Your task to perform on an android device: show emergency info Image 0: 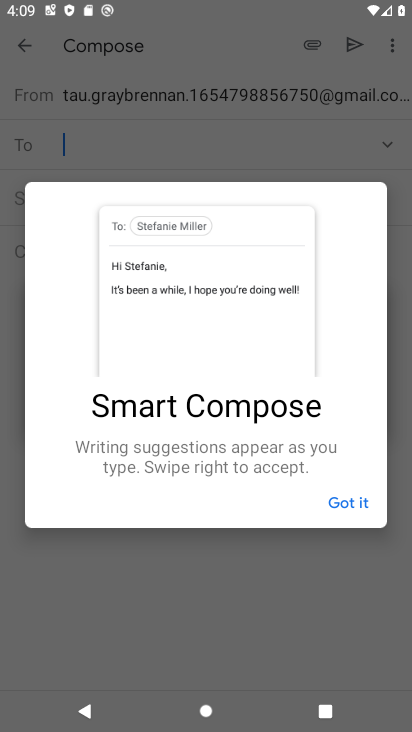
Step 0: press home button
Your task to perform on an android device: show emergency info Image 1: 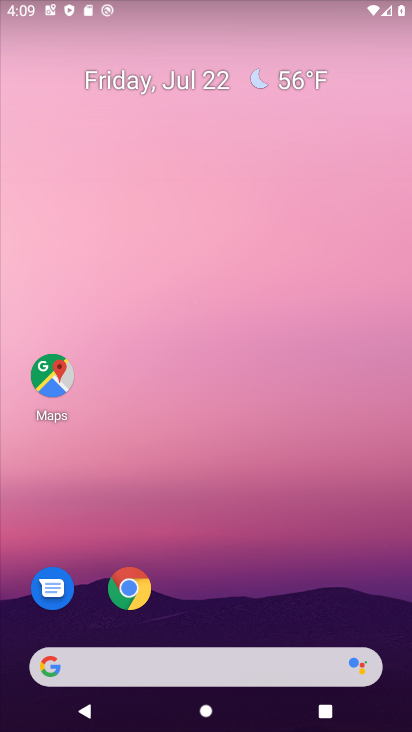
Step 1: drag from (219, 601) to (215, 91)
Your task to perform on an android device: show emergency info Image 2: 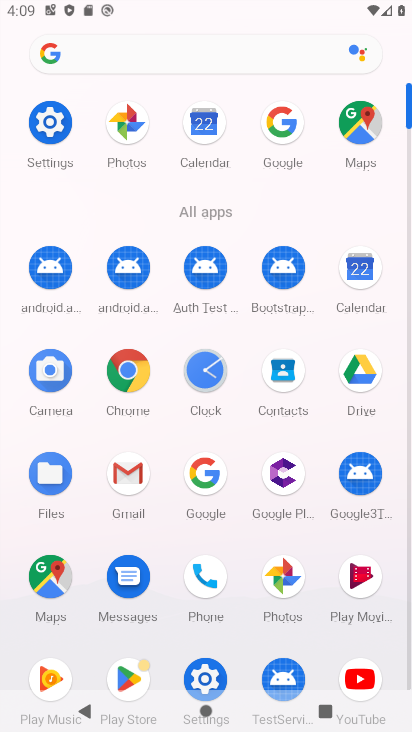
Step 2: click (59, 130)
Your task to perform on an android device: show emergency info Image 3: 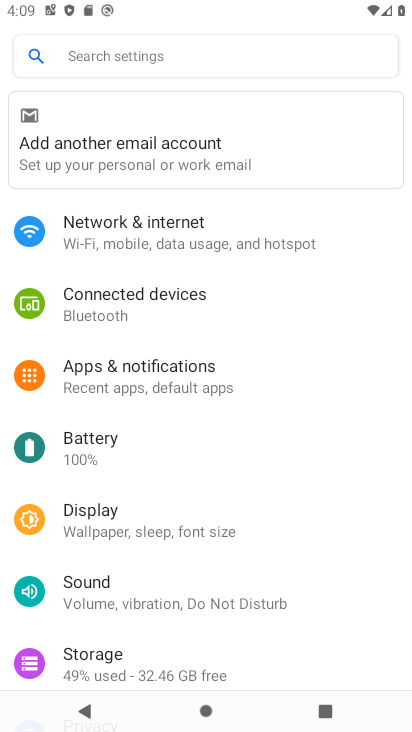
Step 3: drag from (192, 595) to (192, 206)
Your task to perform on an android device: show emergency info Image 4: 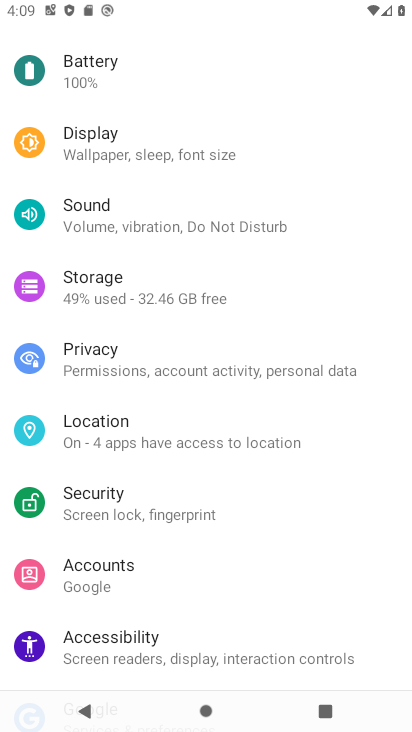
Step 4: drag from (211, 579) to (215, 114)
Your task to perform on an android device: show emergency info Image 5: 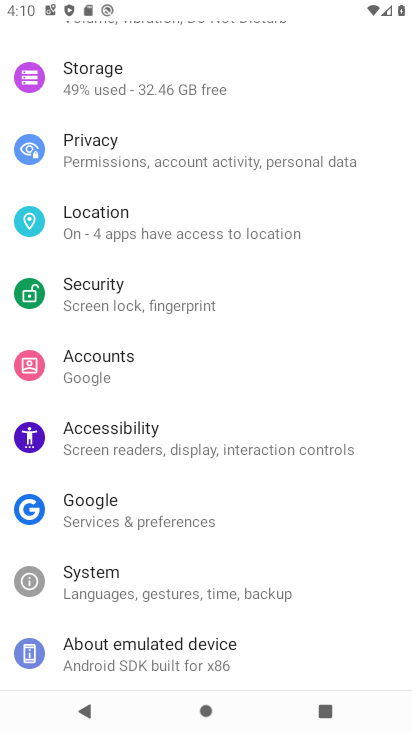
Step 5: click (130, 645)
Your task to perform on an android device: show emergency info Image 6: 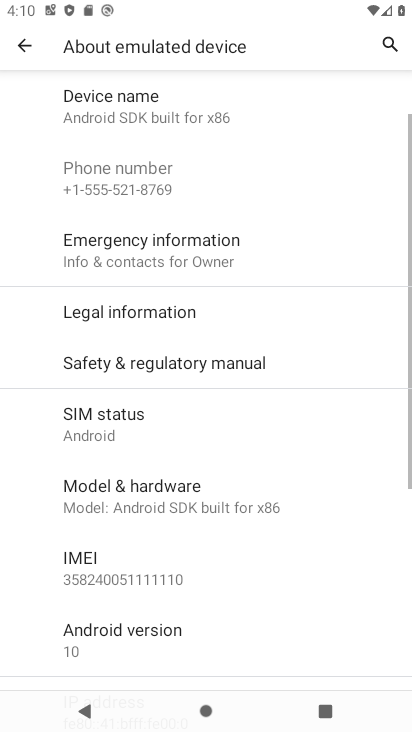
Step 6: click (182, 274)
Your task to perform on an android device: show emergency info Image 7: 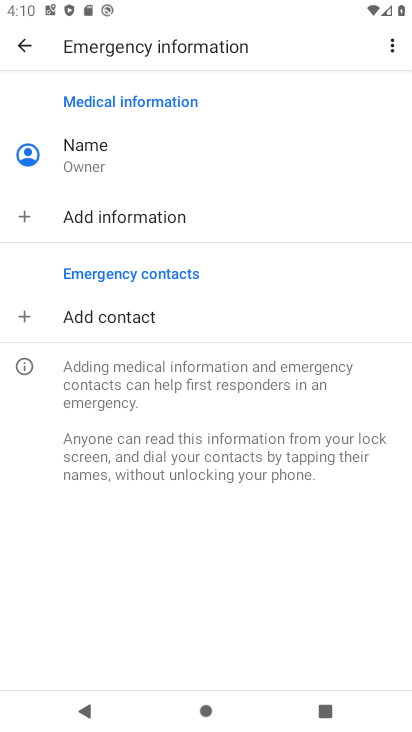
Step 7: task complete